Your task to perform on an android device: Search for hotels in London Image 0: 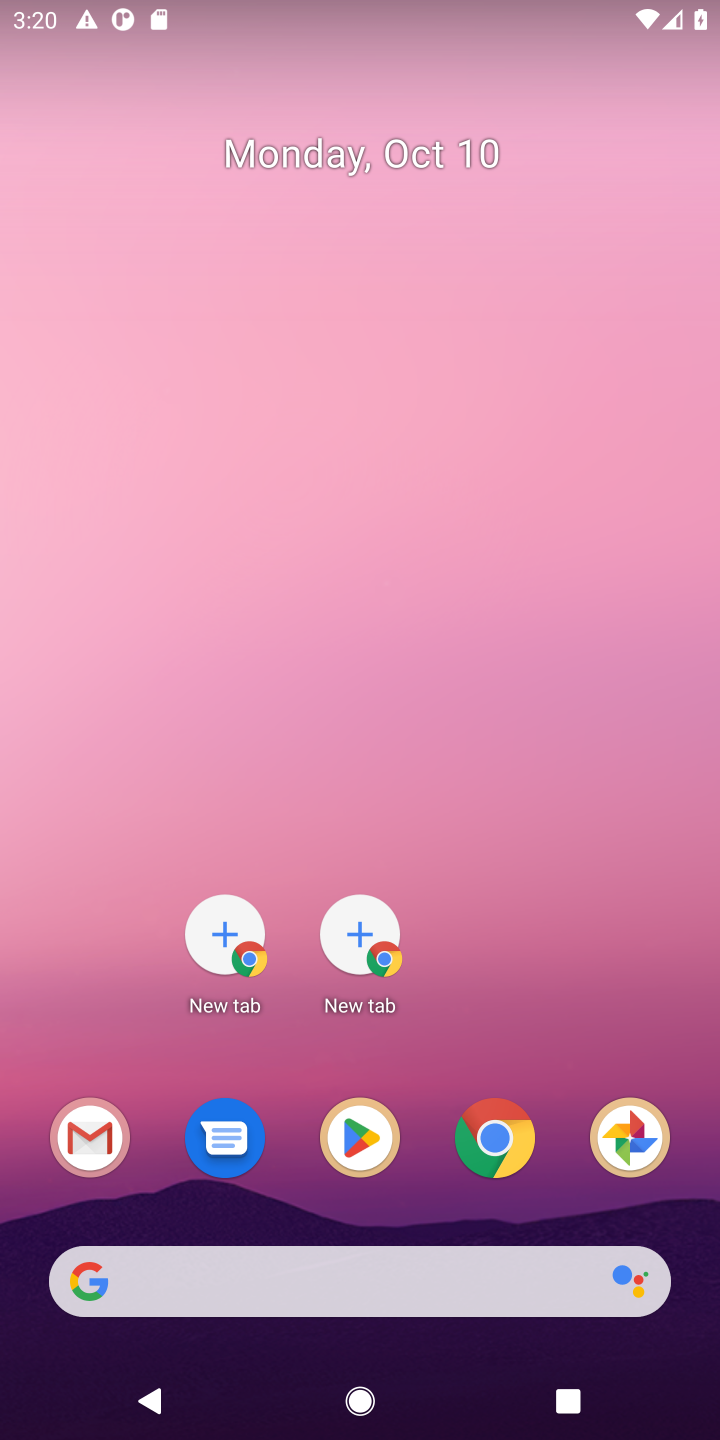
Step 0: drag from (505, 1247) to (478, 571)
Your task to perform on an android device: Search for hotels in London Image 1: 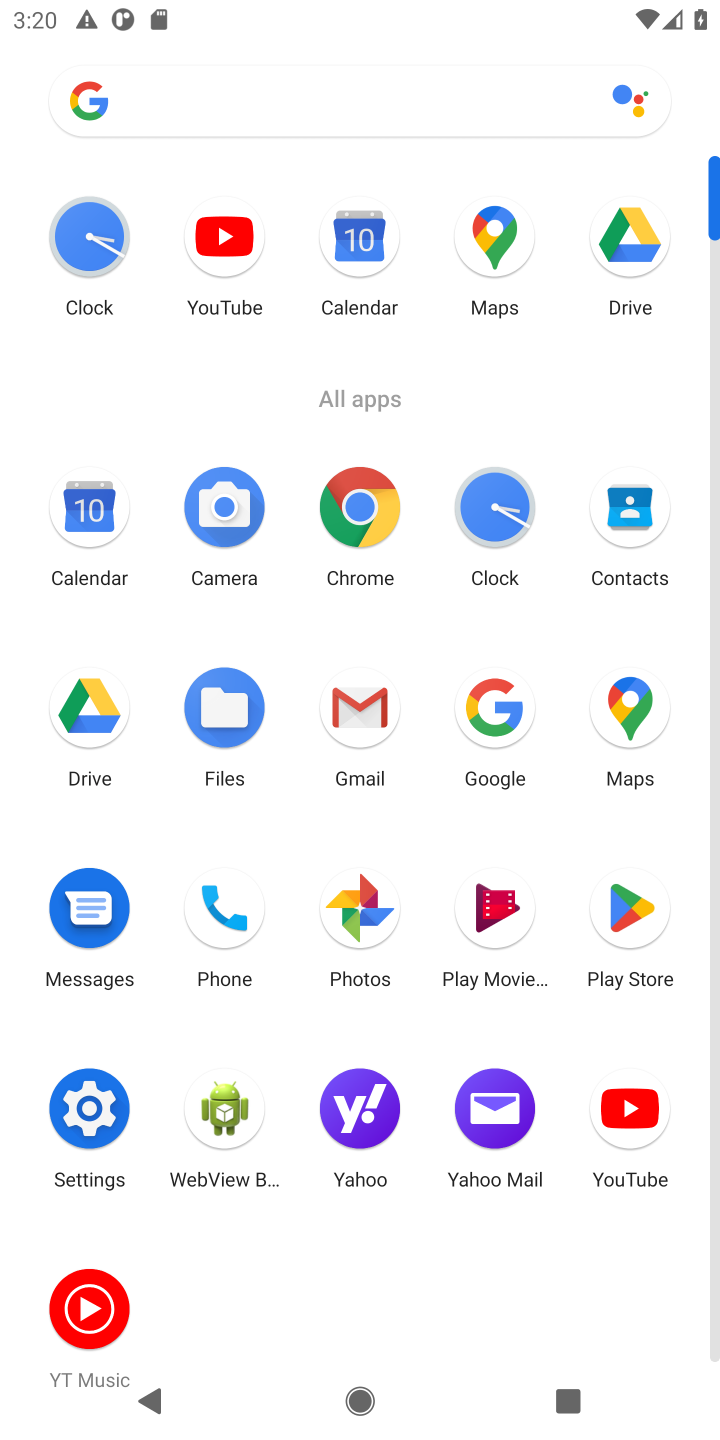
Step 1: click (366, 507)
Your task to perform on an android device: Search for hotels in London Image 2: 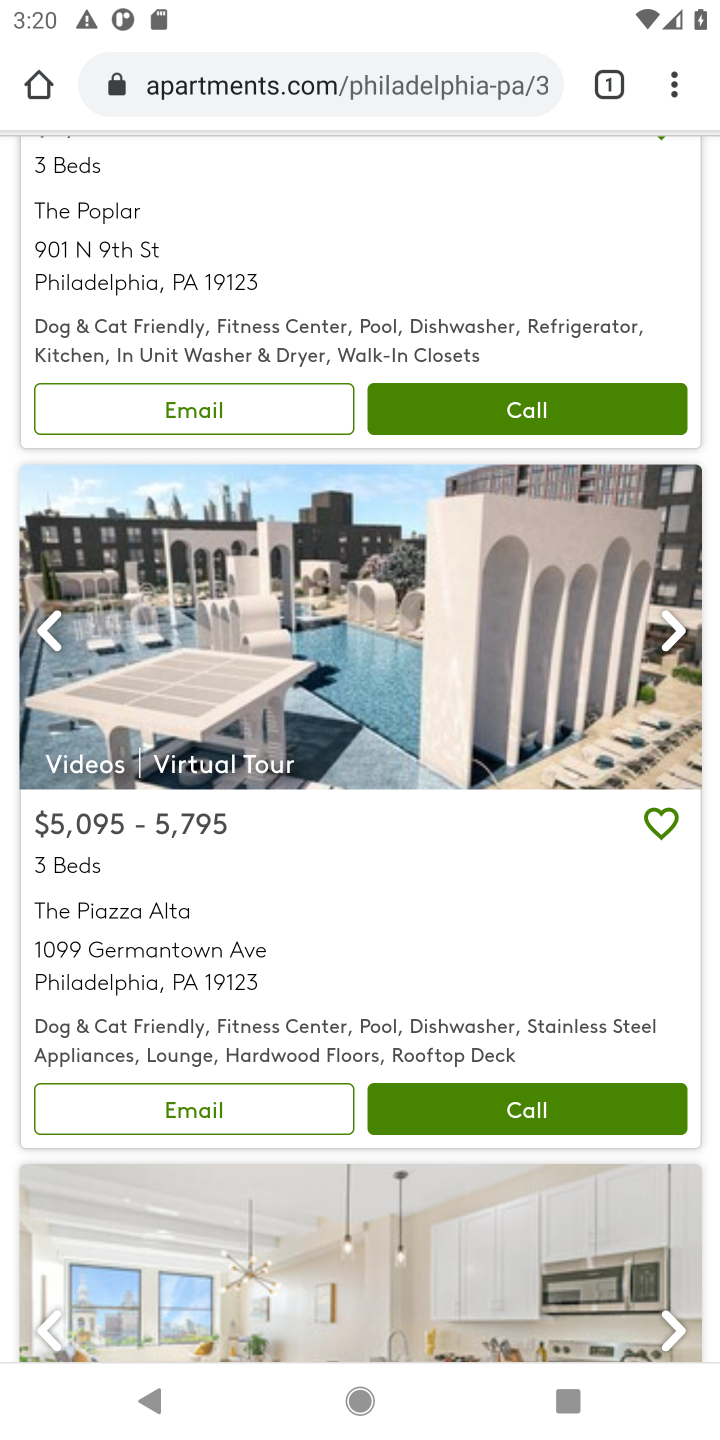
Step 2: click (382, 82)
Your task to perform on an android device: Search for hotels in London Image 3: 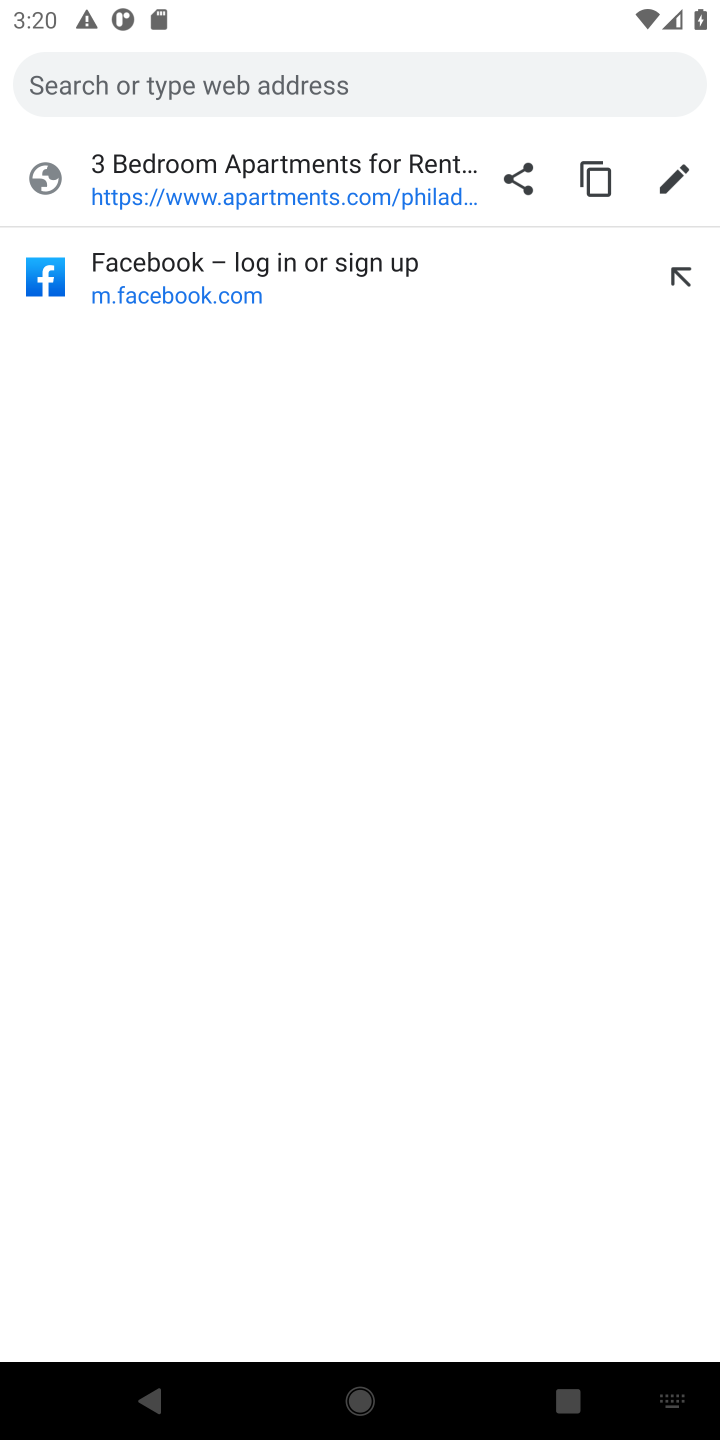
Step 3: type "hotels in london"
Your task to perform on an android device: Search for hotels in London Image 4: 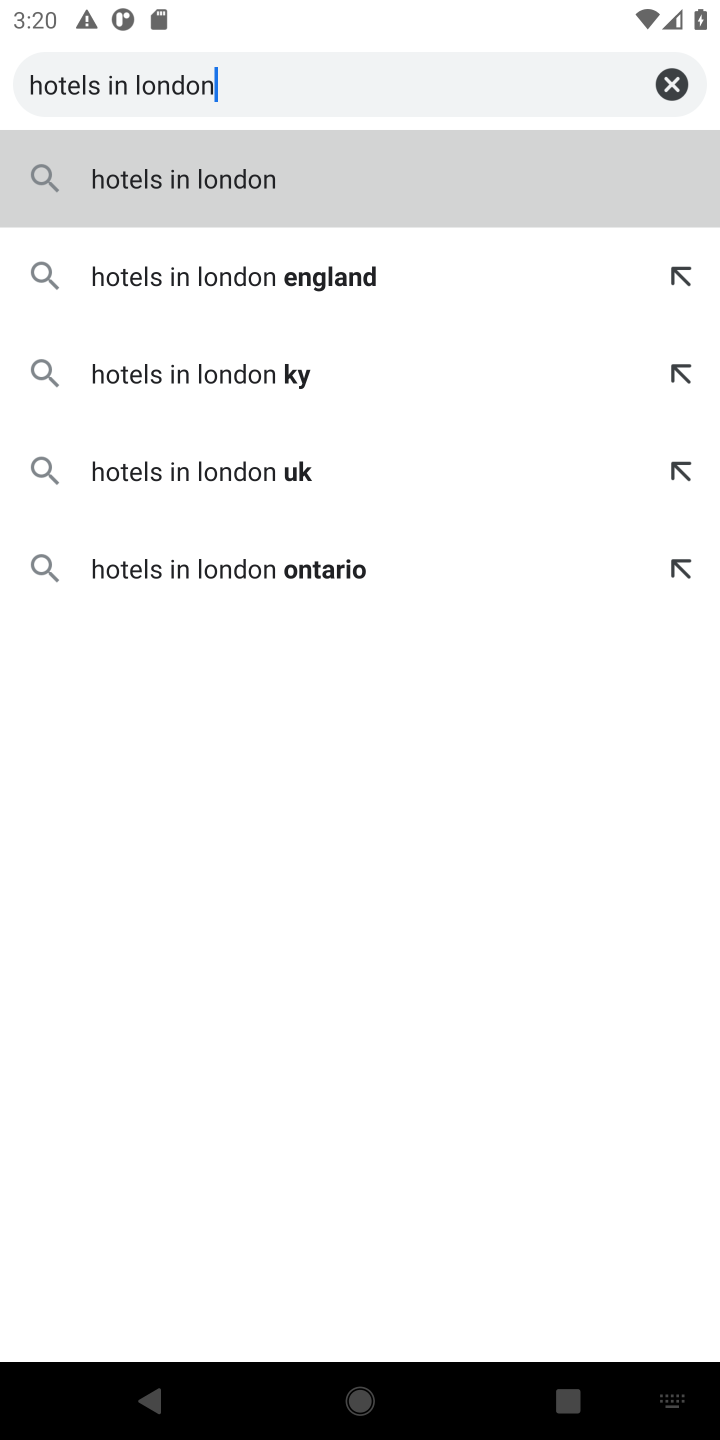
Step 4: press enter
Your task to perform on an android device: Search for hotels in London Image 5: 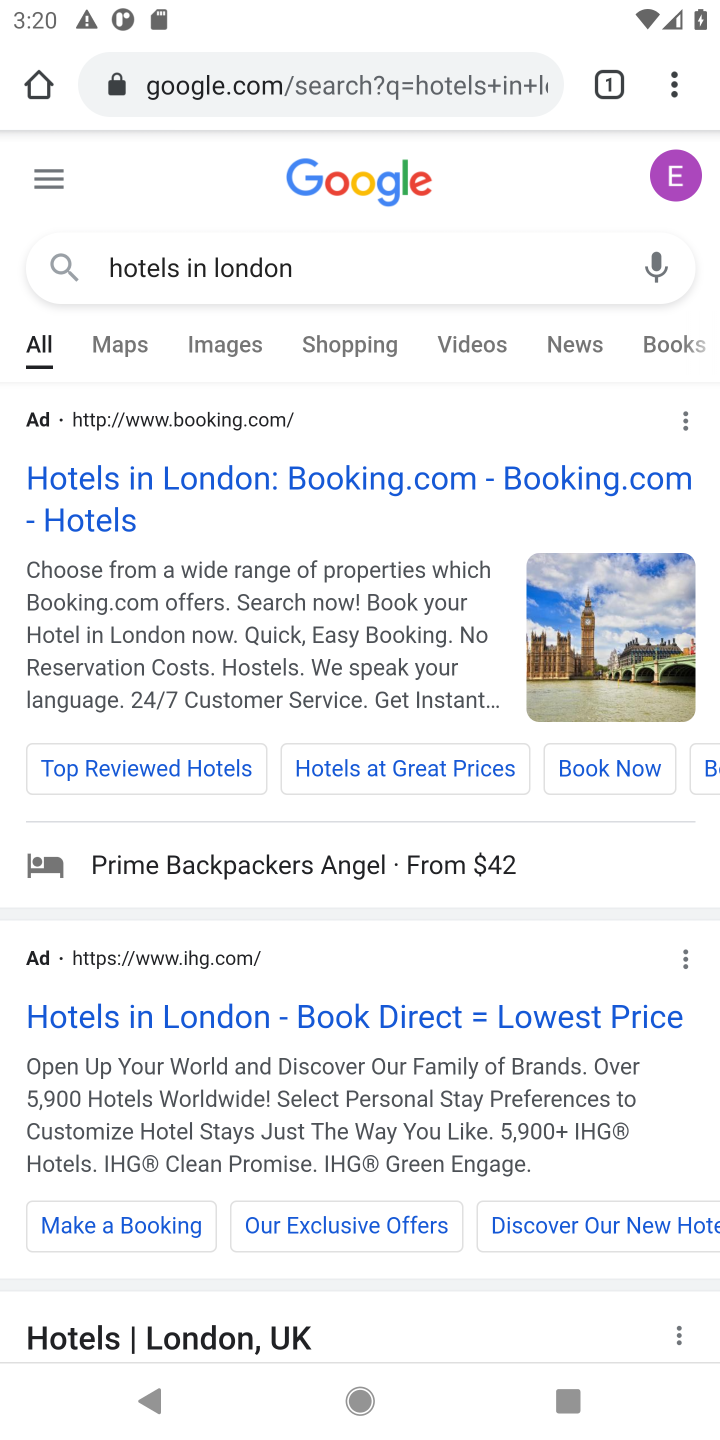
Step 5: click (94, 469)
Your task to perform on an android device: Search for hotels in London Image 6: 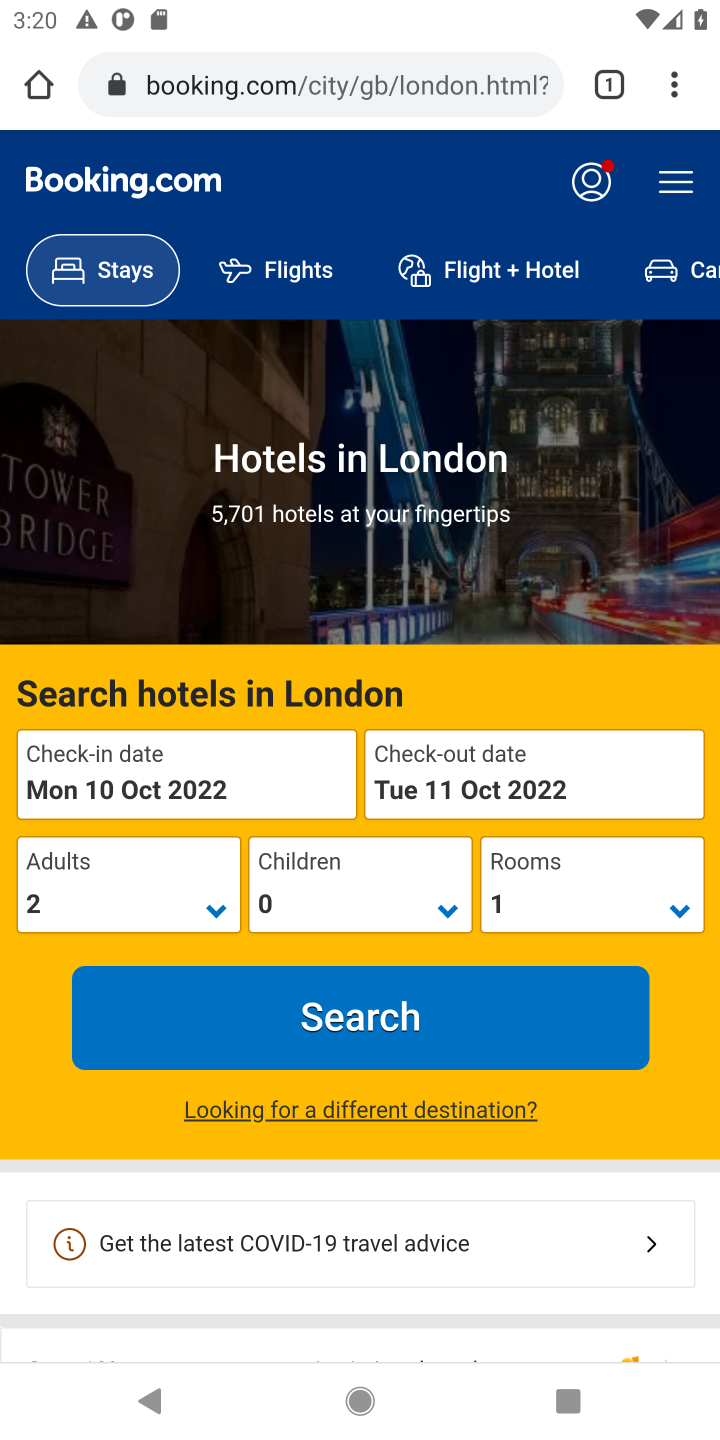
Step 6: task complete